Your task to perform on an android device: Open Android settings Image 0: 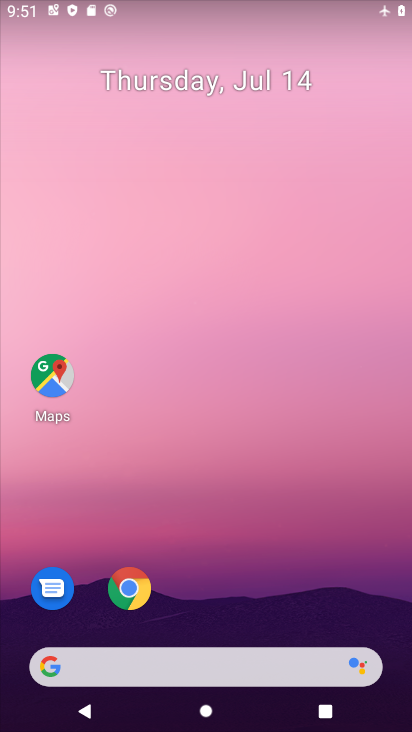
Step 0: drag from (372, 596) to (219, 38)
Your task to perform on an android device: Open Android settings Image 1: 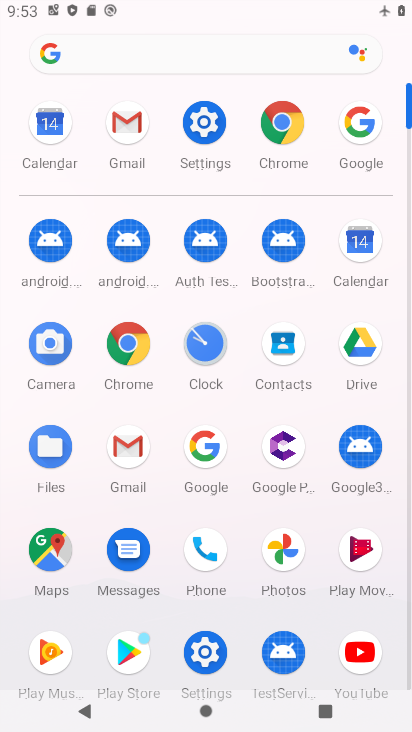
Step 1: click (219, 666)
Your task to perform on an android device: Open Android settings Image 2: 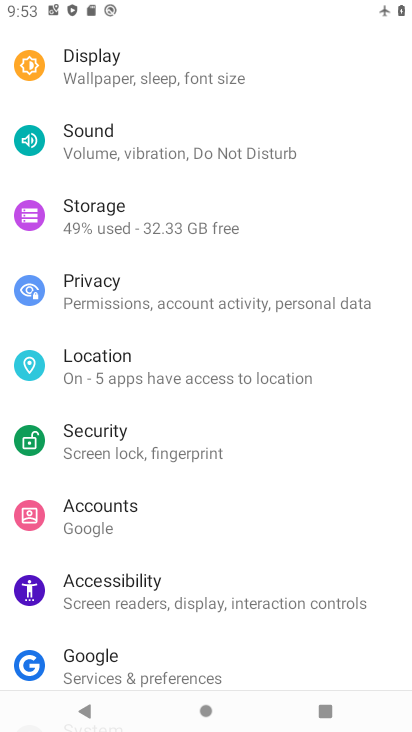
Step 2: task complete